Your task to perform on an android device: change keyboard looks Image 0: 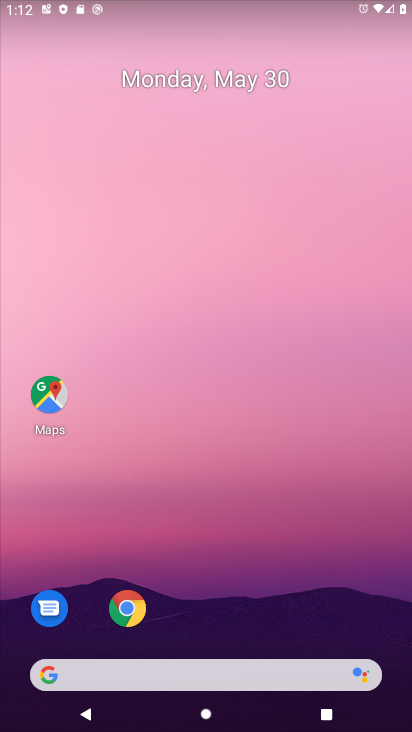
Step 0: drag from (264, 613) to (0, 70)
Your task to perform on an android device: change keyboard looks Image 1: 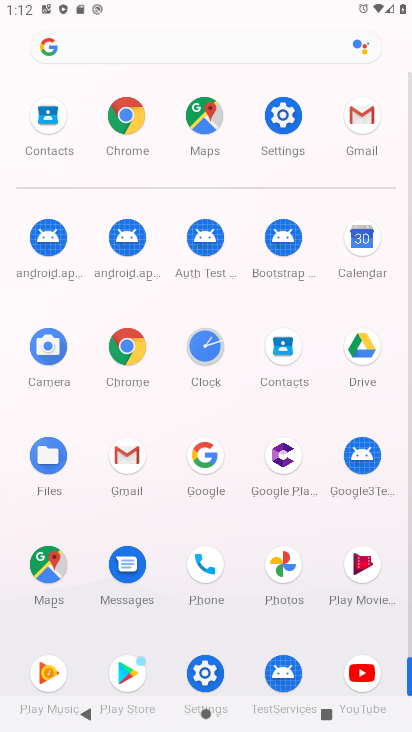
Step 1: click (270, 99)
Your task to perform on an android device: change keyboard looks Image 2: 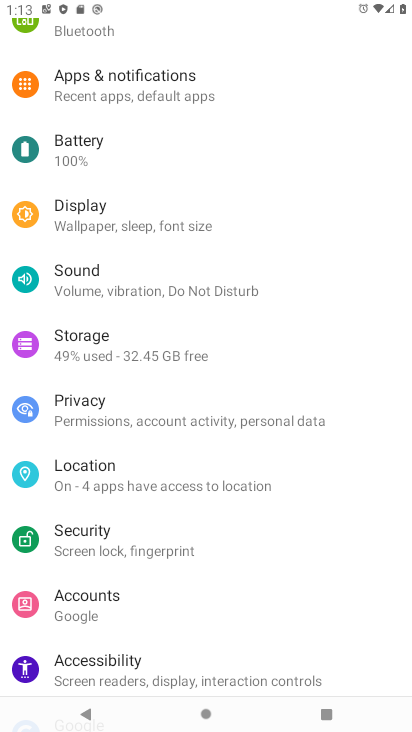
Step 2: drag from (260, 143) to (238, 517)
Your task to perform on an android device: change keyboard looks Image 3: 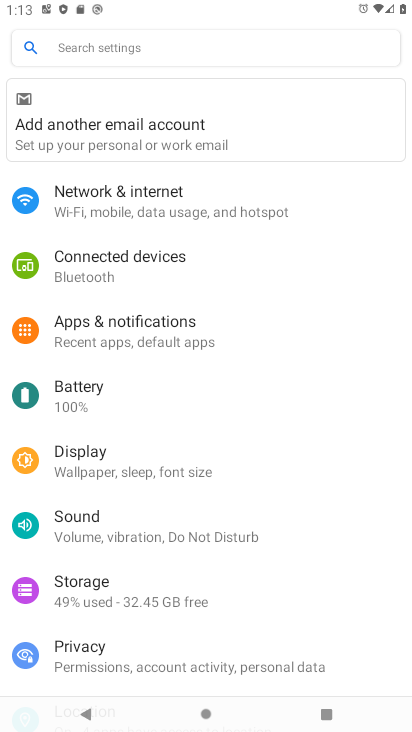
Step 3: drag from (270, 488) to (275, 109)
Your task to perform on an android device: change keyboard looks Image 4: 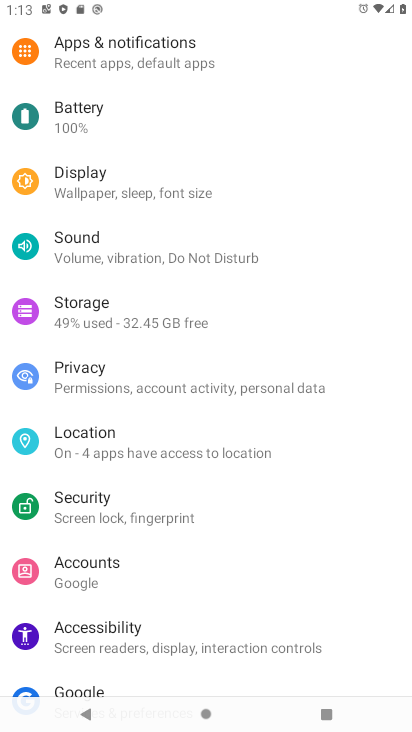
Step 4: drag from (274, 525) to (263, 104)
Your task to perform on an android device: change keyboard looks Image 5: 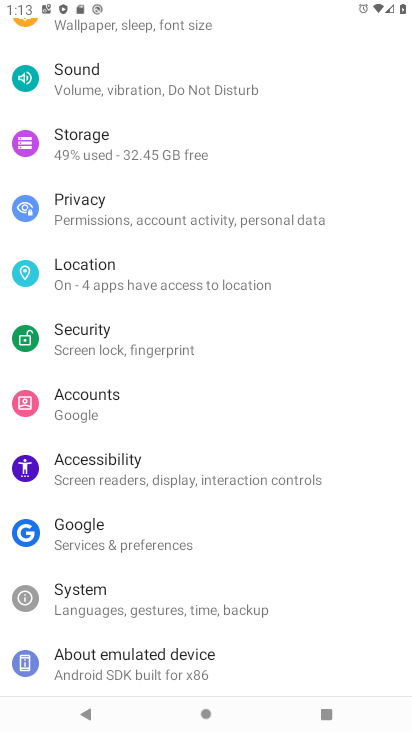
Step 5: click (123, 651)
Your task to perform on an android device: change keyboard looks Image 6: 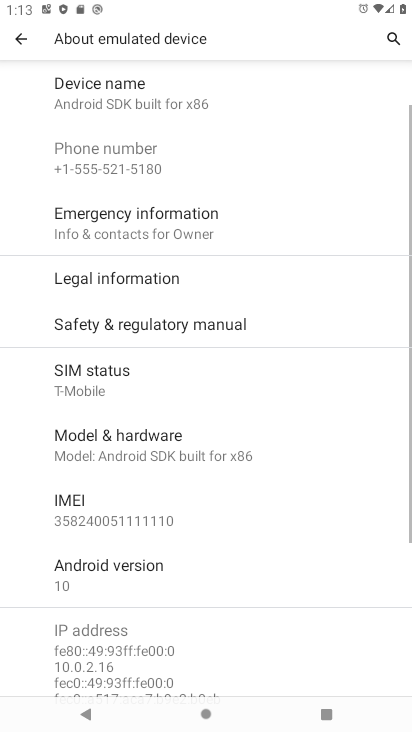
Step 6: drag from (215, 532) to (257, 182)
Your task to perform on an android device: change keyboard looks Image 7: 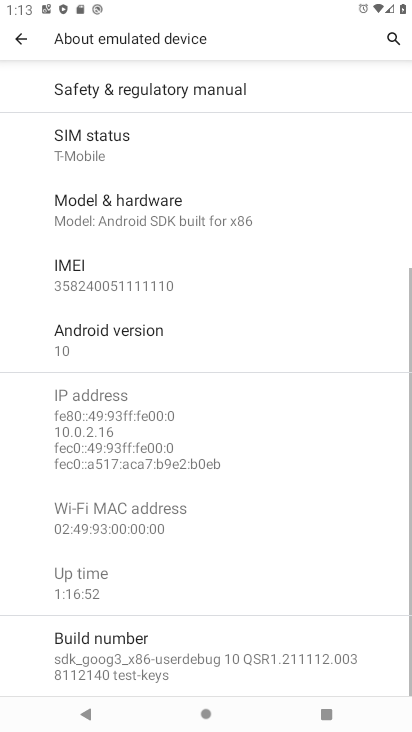
Step 7: drag from (255, 497) to (236, 128)
Your task to perform on an android device: change keyboard looks Image 8: 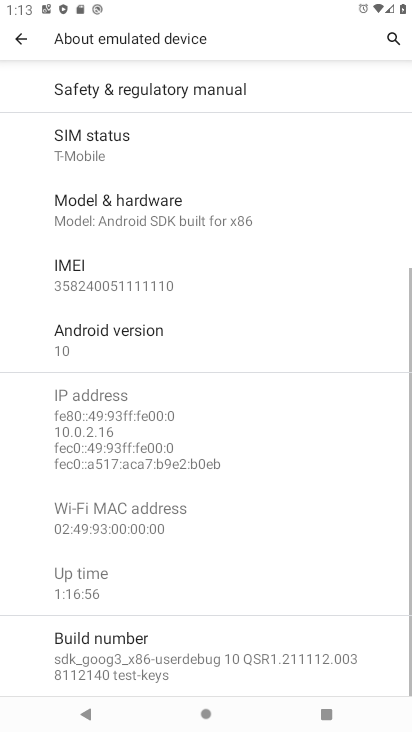
Step 8: press back button
Your task to perform on an android device: change keyboard looks Image 9: 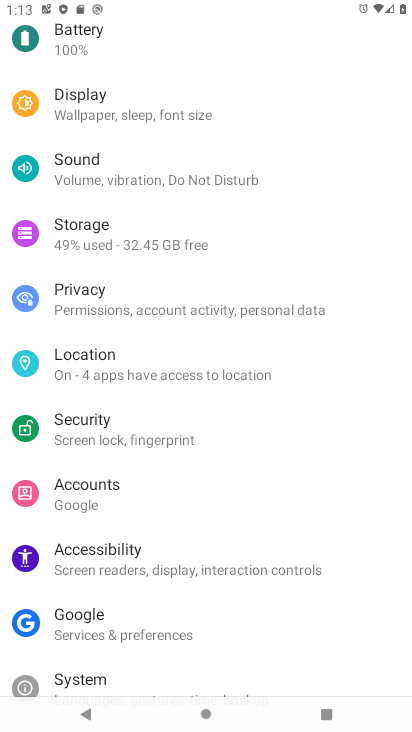
Step 9: drag from (188, 185) to (179, 529)
Your task to perform on an android device: change keyboard looks Image 10: 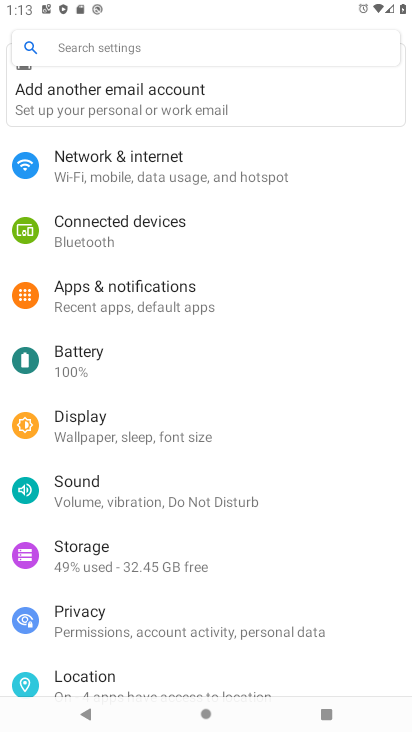
Step 10: drag from (233, 526) to (245, 180)
Your task to perform on an android device: change keyboard looks Image 11: 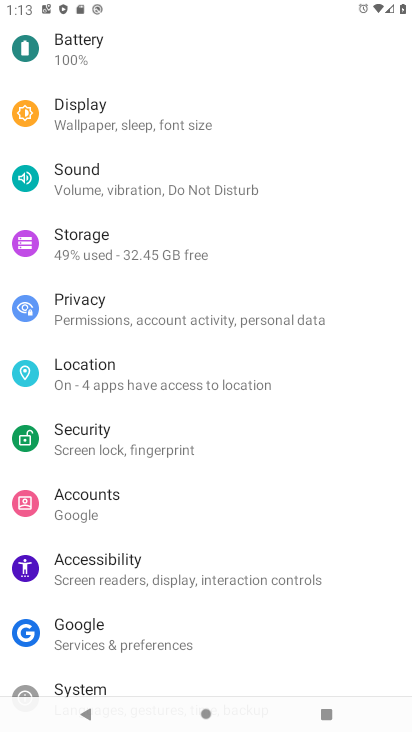
Step 11: drag from (251, 562) to (277, 241)
Your task to perform on an android device: change keyboard looks Image 12: 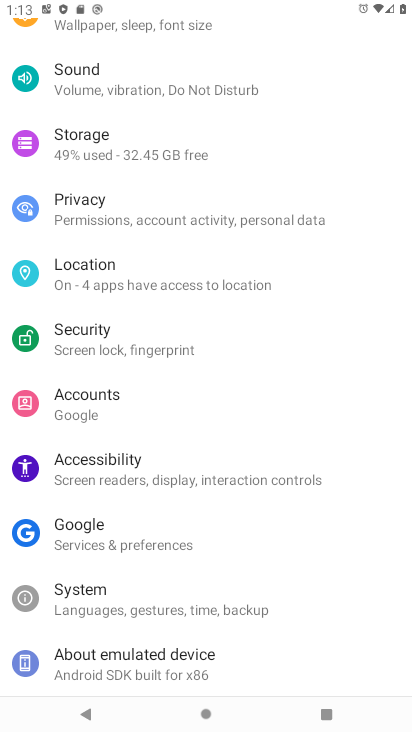
Step 12: click (119, 487)
Your task to perform on an android device: change keyboard looks Image 13: 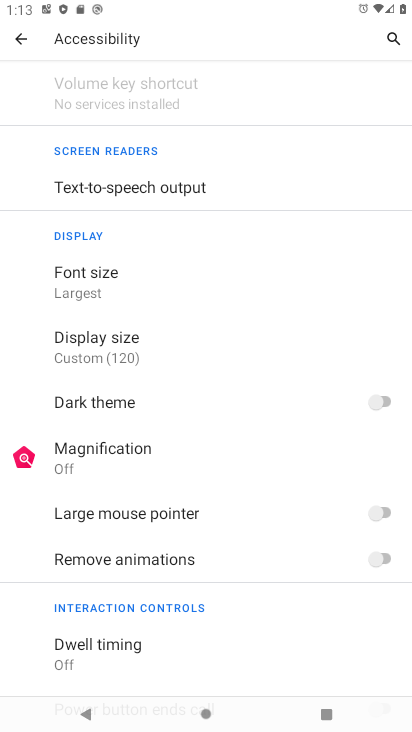
Step 13: task complete